Your task to perform on an android device: Go to Yahoo.com Image 0: 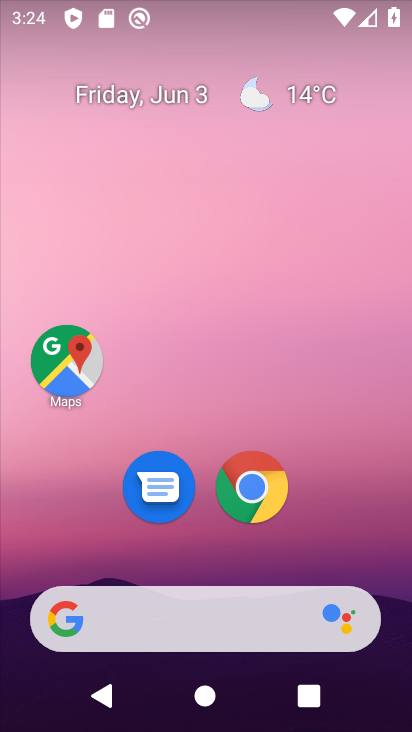
Step 0: click (246, 499)
Your task to perform on an android device: Go to Yahoo.com Image 1: 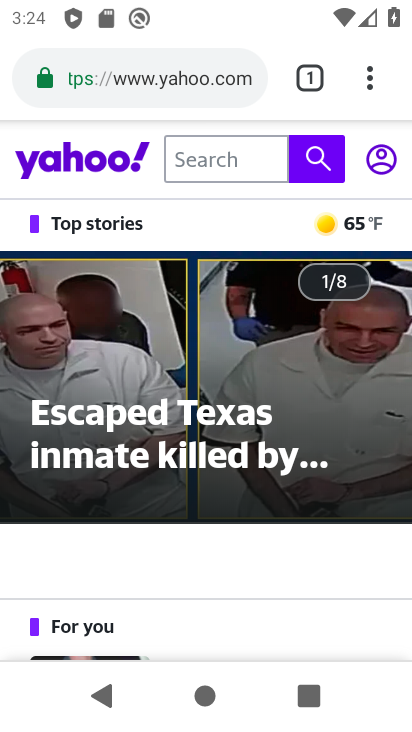
Step 1: task complete